Your task to perform on an android device: toggle show notifications on the lock screen Image 0: 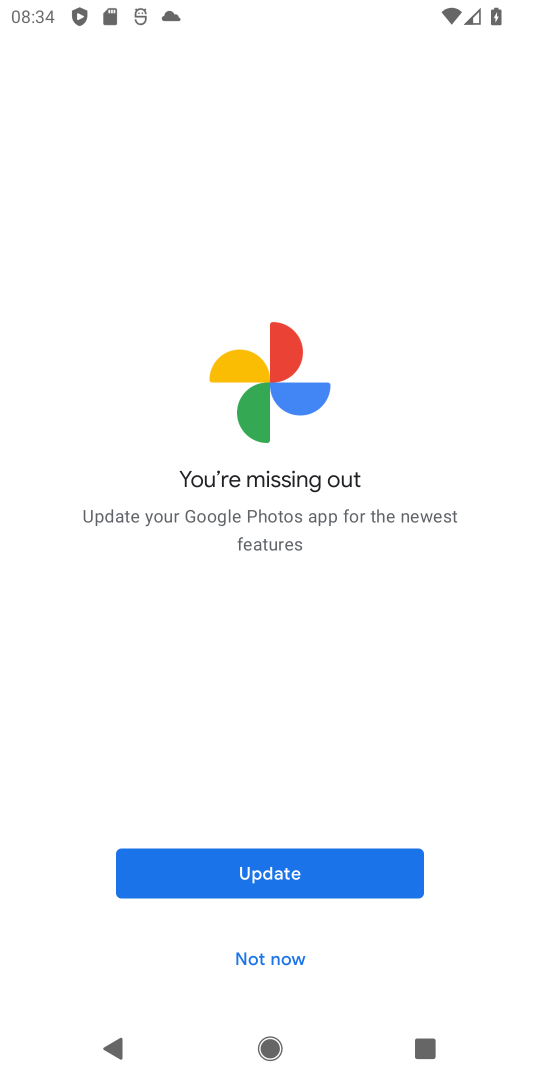
Step 0: press home button
Your task to perform on an android device: toggle show notifications on the lock screen Image 1: 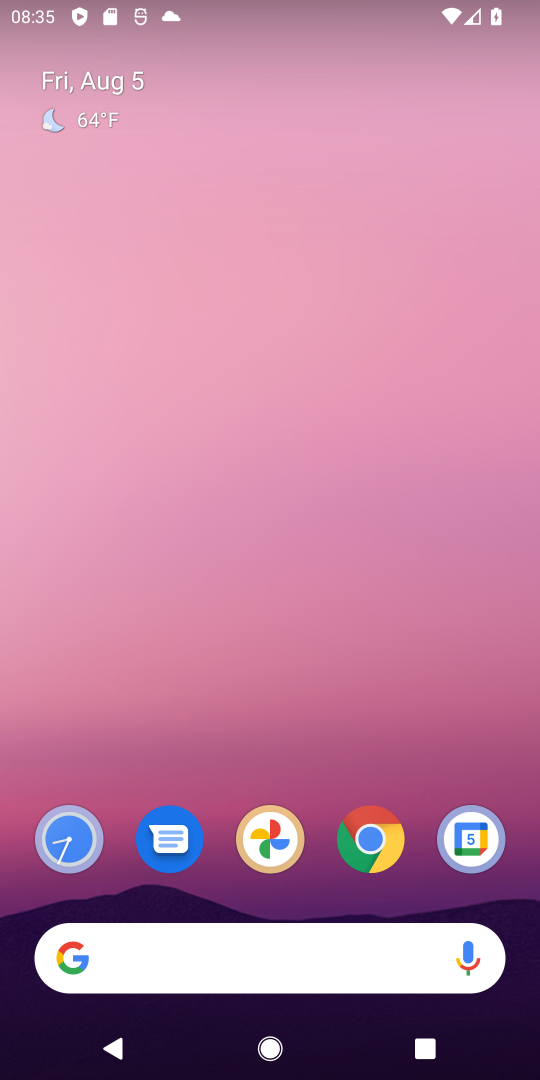
Step 1: drag from (311, 878) to (311, 111)
Your task to perform on an android device: toggle show notifications on the lock screen Image 2: 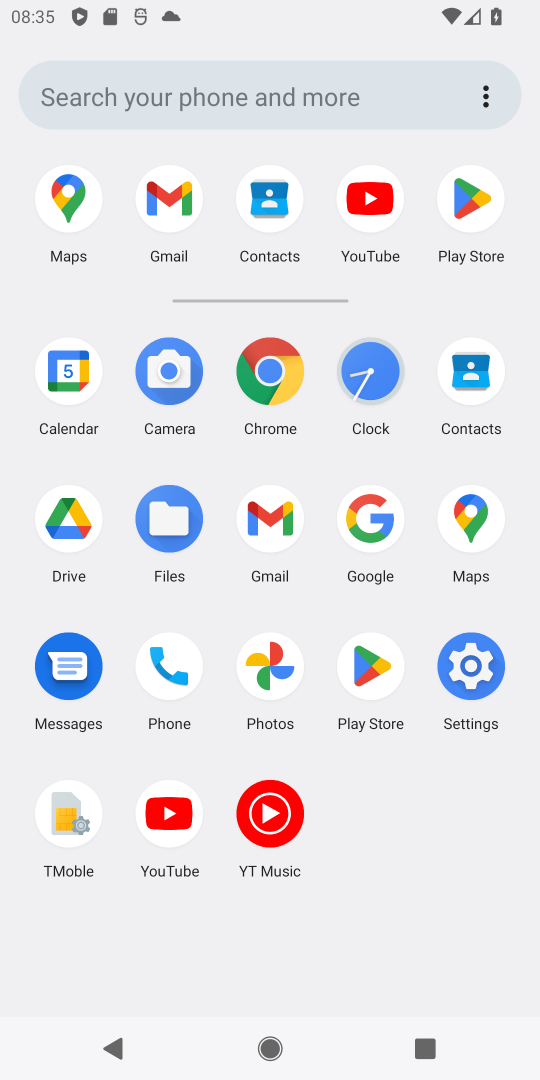
Step 2: click (469, 662)
Your task to perform on an android device: toggle show notifications on the lock screen Image 3: 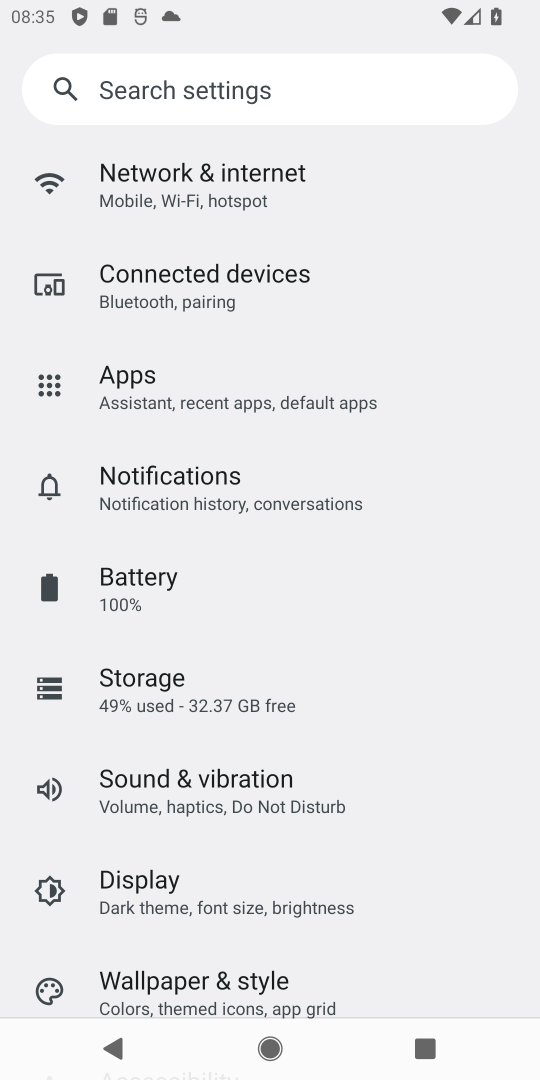
Step 3: click (159, 484)
Your task to perform on an android device: toggle show notifications on the lock screen Image 4: 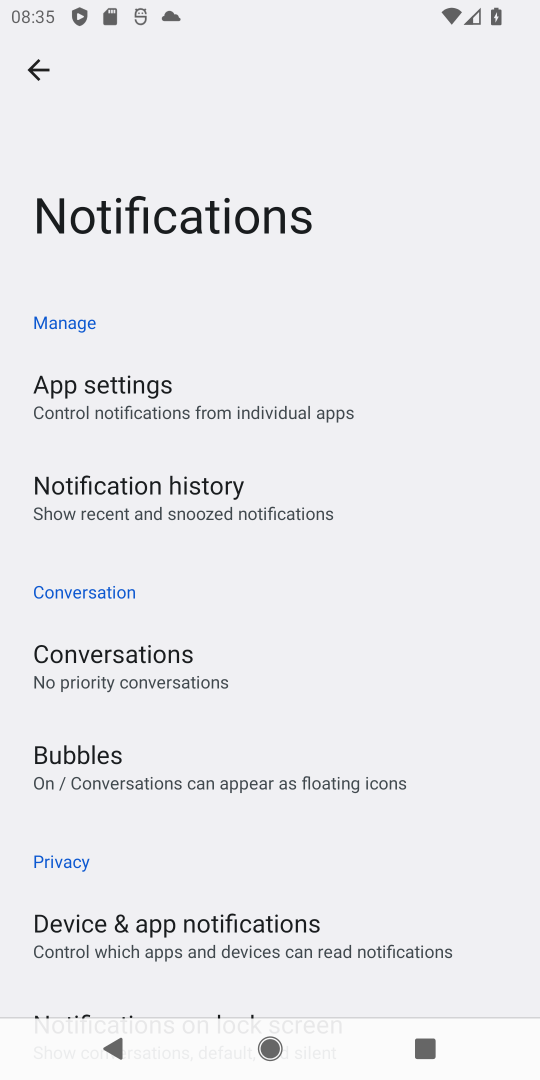
Step 4: drag from (188, 993) to (200, 503)
Your task to perform on an android device: toggle show notifications on the lock screen Image 5: 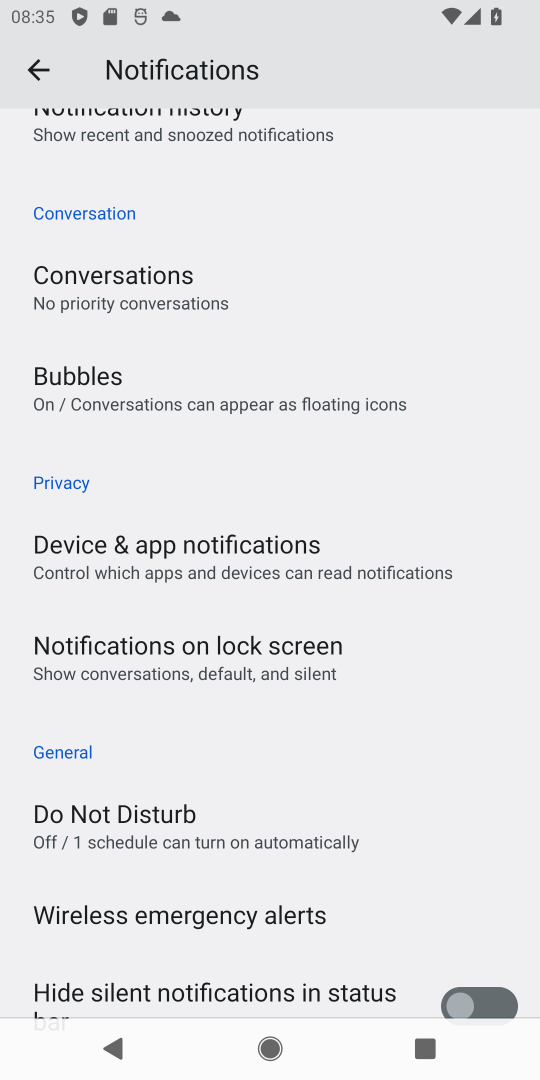
Step 5: click (219, 657)
Your task to perform on an android device: toggle show notifications on the lock screen Image 6: 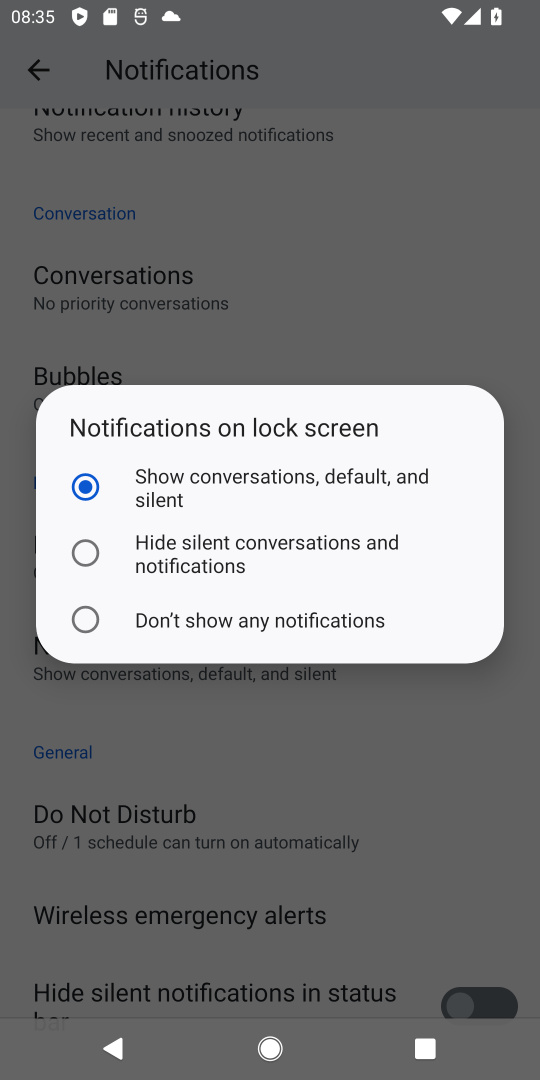
Step 6: click (88, 546)
Your task to perform on an android device: toggle show notifications on the lock screen Image 7: 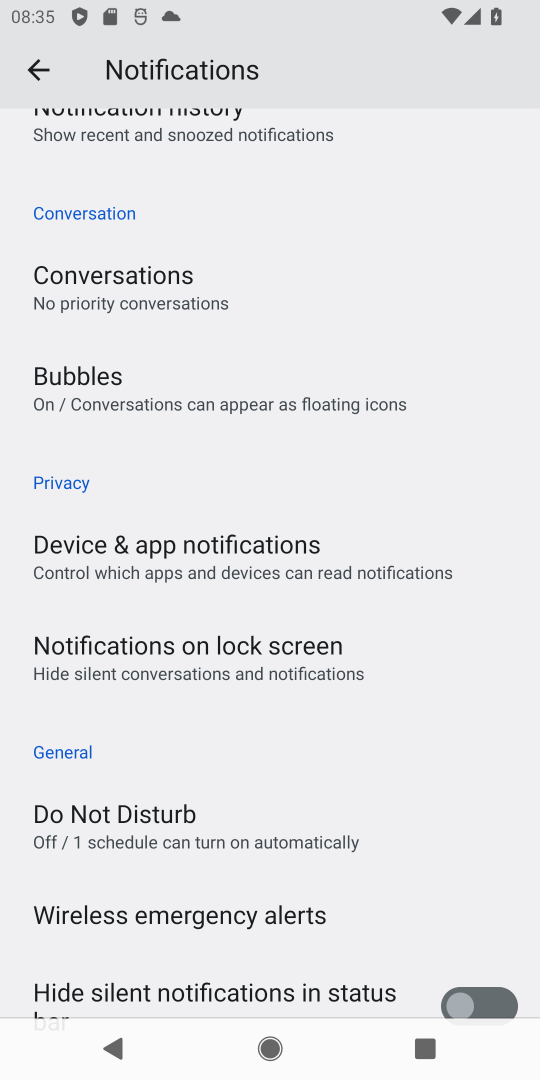
Step 7: task complete